Your task to perform on an android device: delete location history Image 0: 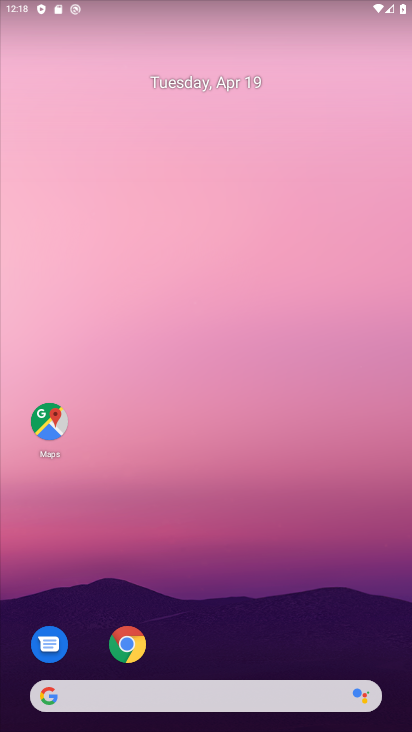
Step 0: click (126, 632)
Your task to perform on an android device: delete location history Image 1: 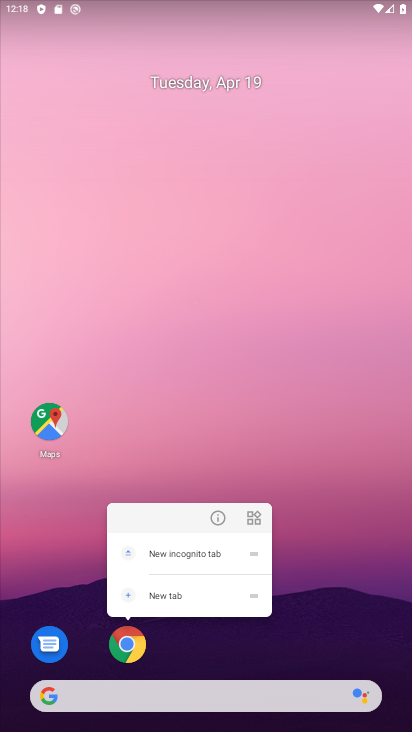
Step 1: click (126, 632)
Your task to perform on an android device: delete location history Image 2: 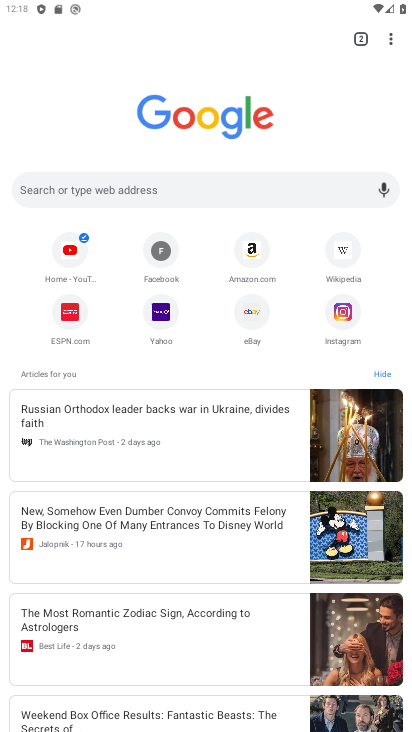
Step 2: click (396, 44)
Your task to perform on an android device: delete location history Image 3: 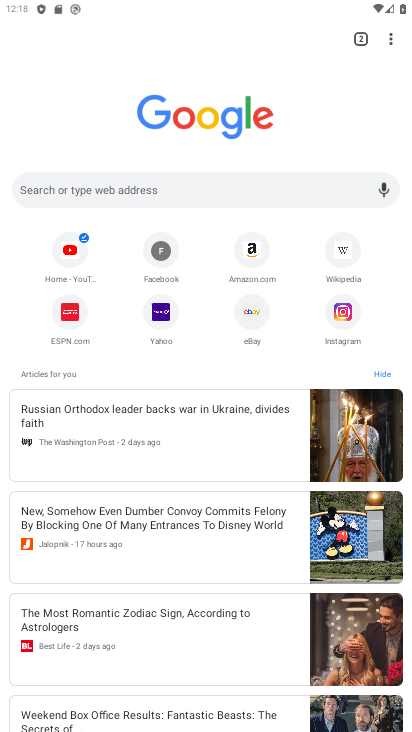
Step 3: click (396, 44)
Your task to perform on an android device: delete location history Image 4: 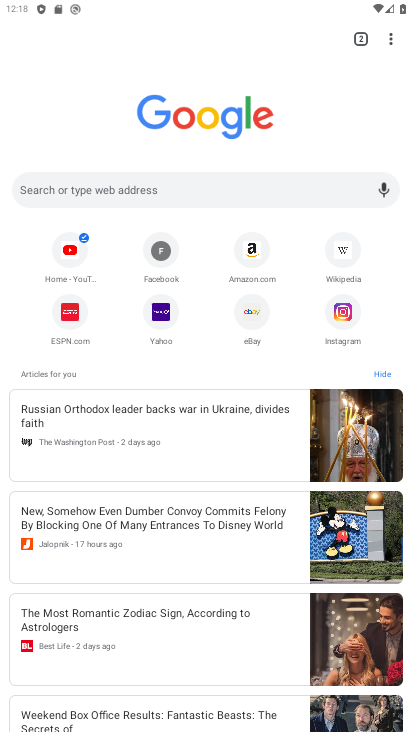
Step 4: click (391, 46)
Your task to perform on an android device: delete location history Image 5: 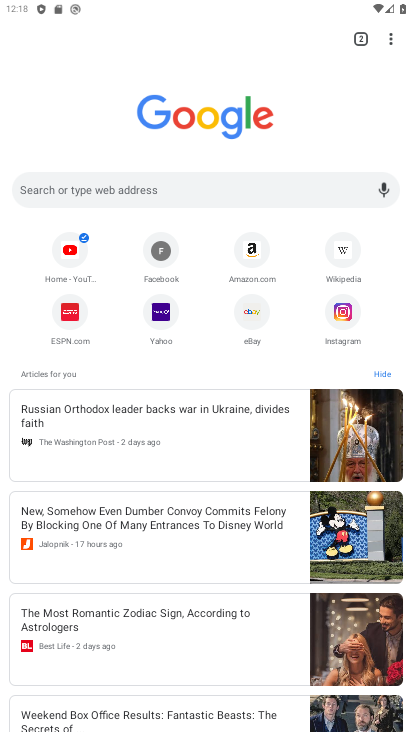
Step 5: click (402, 39)
Your task to perform on an android device: delete location history Image 6: 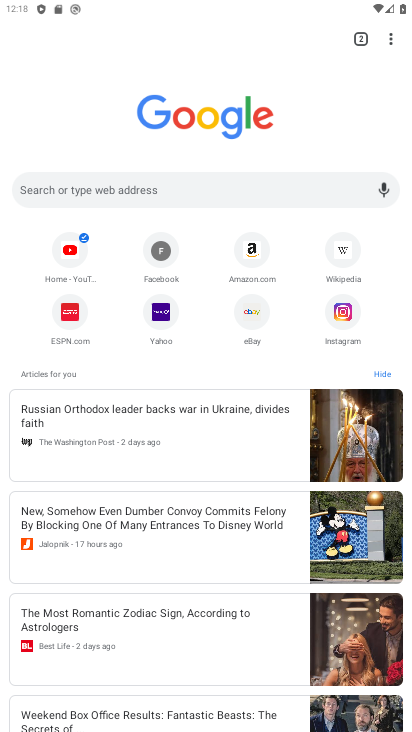
Step 6: click (400, 43)
Your task to perform on an android device: delete location history Image 7: 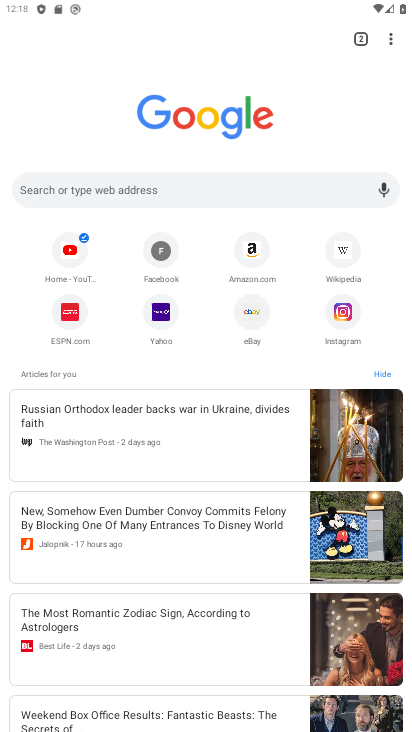
Step 7: click (391, 50)
Your task to perform on an android device: delete location history Image 8: 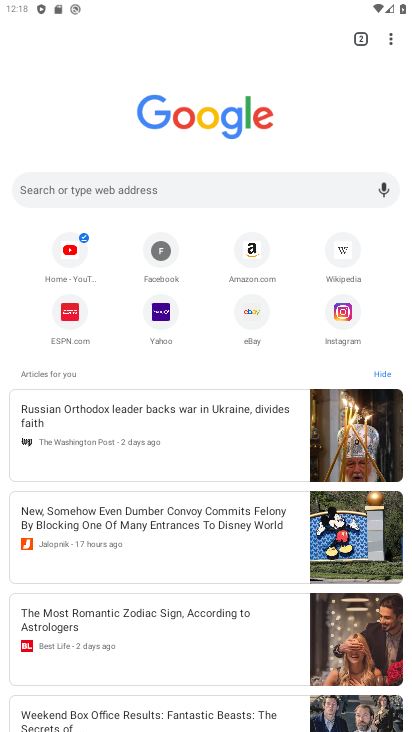
Step 8: click (389, 50)
Your task to perform on an android device: delete location history Image 9: 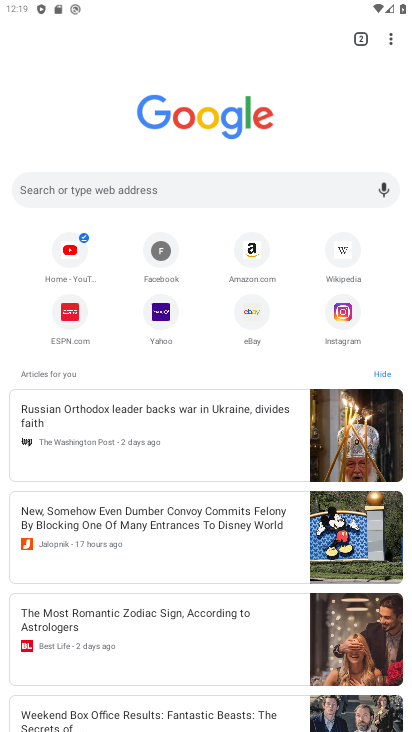
Step 9: click (386, 34)
Your task to perform on an android device: delete location history Image 10: 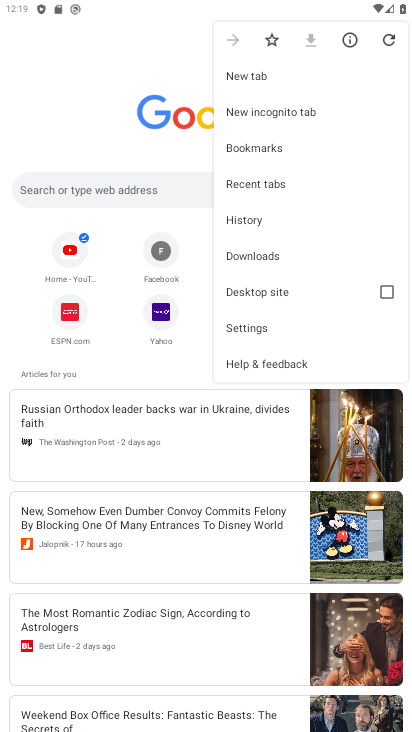
Step 10: click (264, 221)
Your task to perform on an android device: delete location history Image 11: 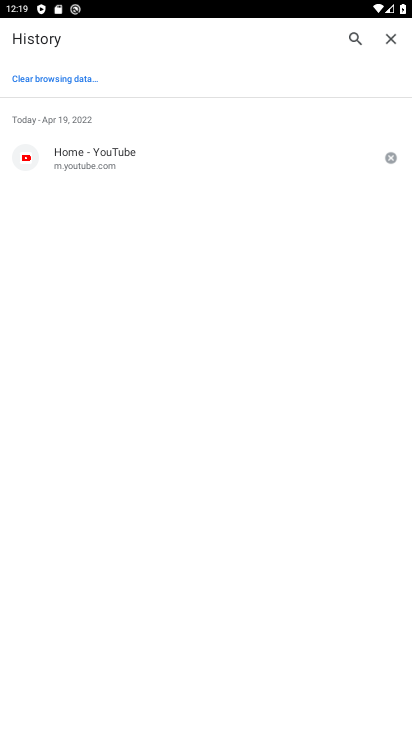
Step 11: click (46, 86)
Your task to perform on an android device: delete location history Image 12: 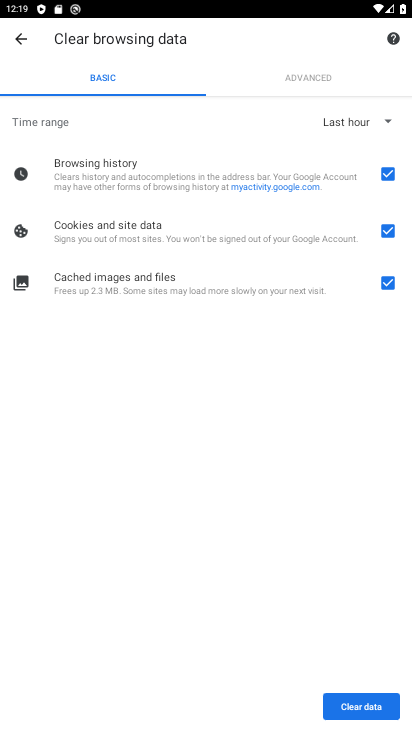
Step 12: click (365, 701)
Your task to perform on an android device: delete location history Image 13: 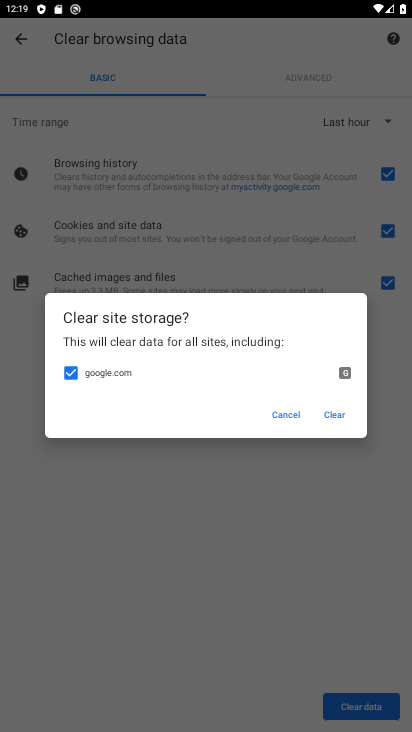
Step 13: click (334, 421)
Your task to perform on an android device: delete location history Image 14: 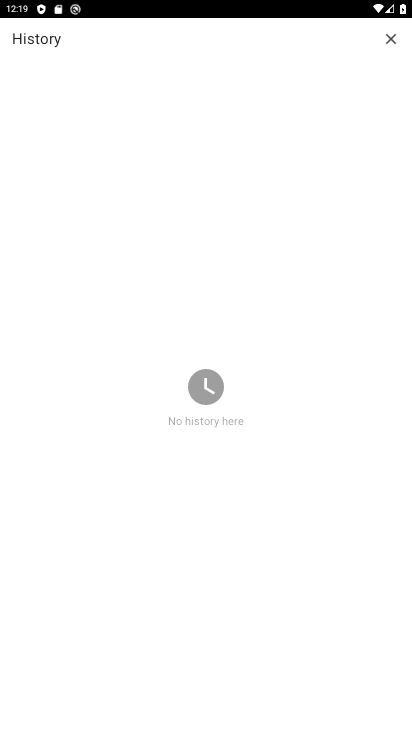
Step 14: task complete